Your task to perform on an android device: Turn on the flashlight Image 0: 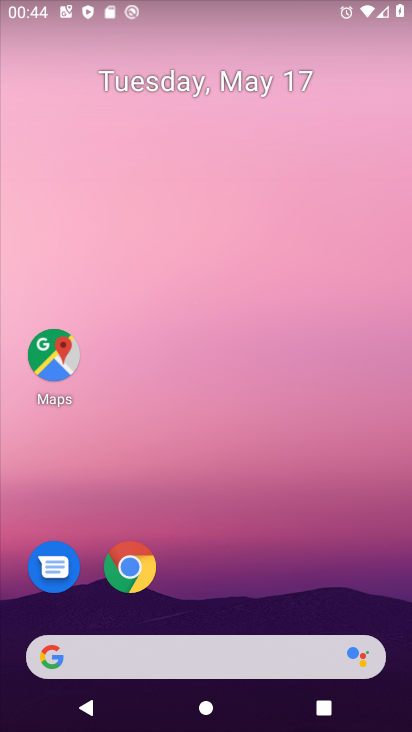
Step 0: drag from (237, 554) to (137, 3)
Your task to perform on an android device: Turn on the flashlight Image 1: 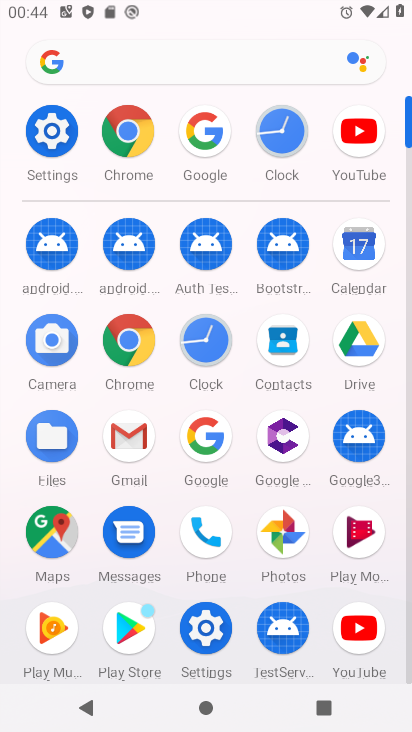
Step 1: click (54, 132)
Your task to perform on an android device: Turn on the flashlight Image 2: 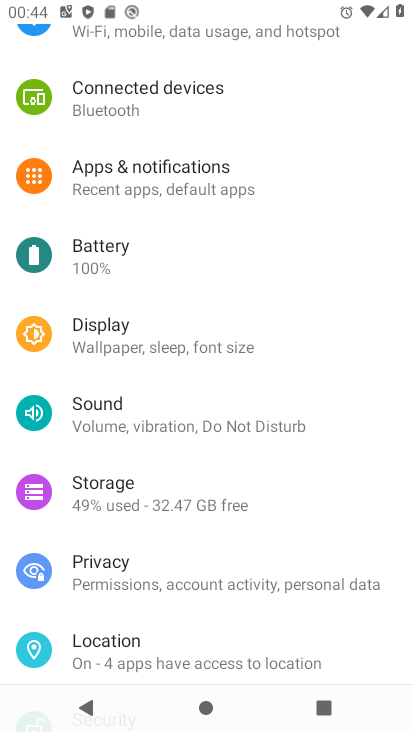
Step 2: click (124, 167)
Your task to perform on an android device: Turn on the flashlight Image 3: 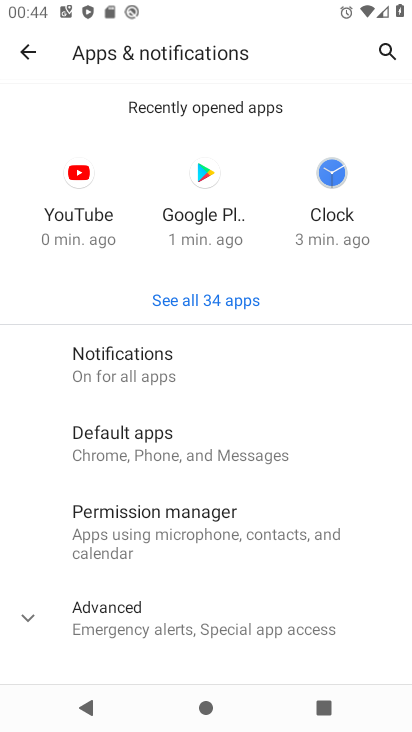
Step 3: task complete